Your task to perform on an android device: Open calendar and show me the first week of next month Image 0: 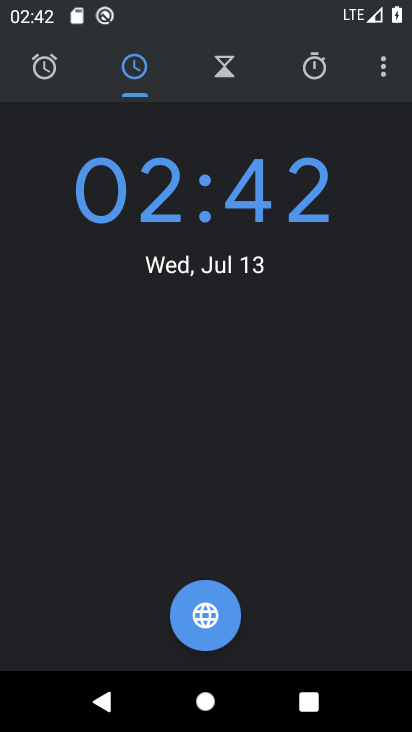
Step 0: press home button
Your task to perform on an android device: Open calendar and show me the first week of next month Image 1: 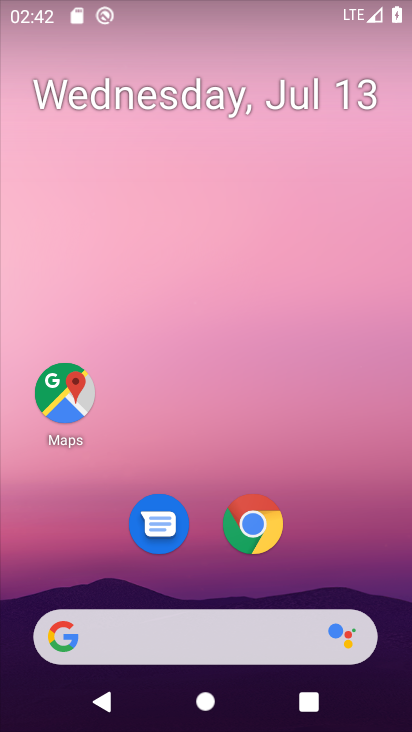
Step 1: drag from (290, 528) to (245, 134)
Your task to perform on an android device: Open calendar and show me the first week of next month Image 2: 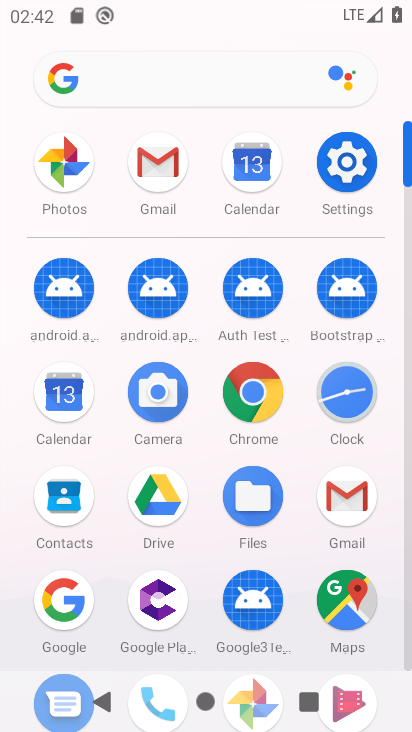
Step 2: click (261, 155)
Your task to perform on an android device: Open calendar and show me the first week of next month Image 3: 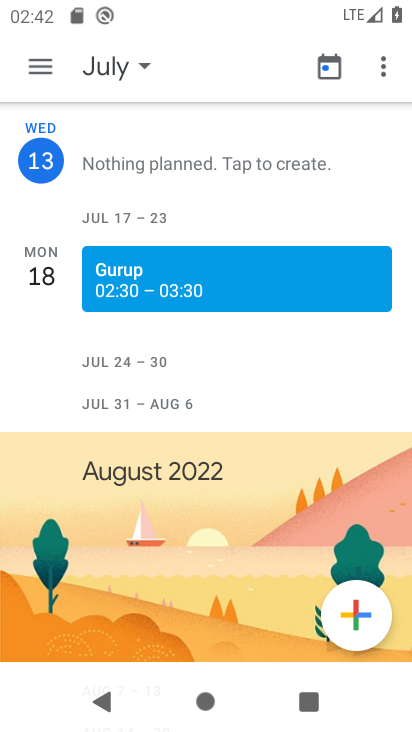
Step 3: click (28, 57)
Your task to perform on an android device: Open calendar and show me the first week of next month Image 4: 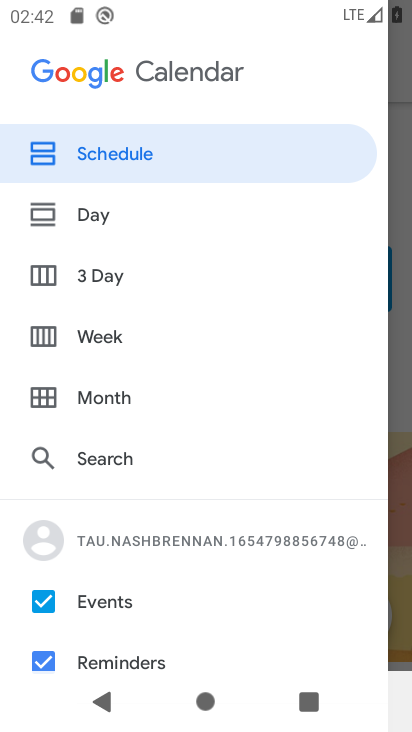
Step 4: click (44, 332)
Your task to perform on an android device: Open calendar and show me the first week of next month Image 5: 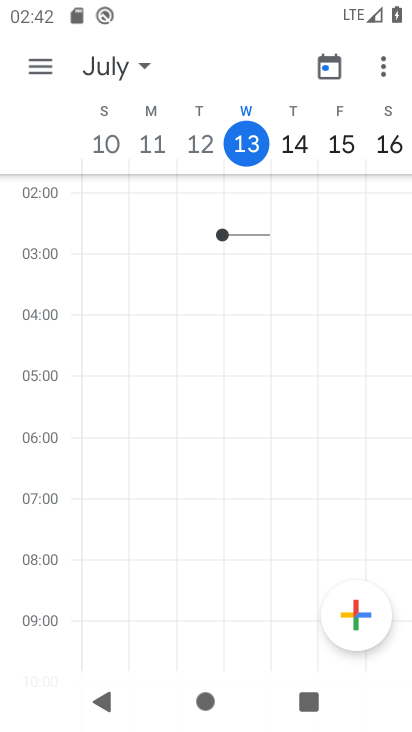
Step 5: task complete